Your task to perform on an android device: delete the emails in spam in the gmail app Image 0: 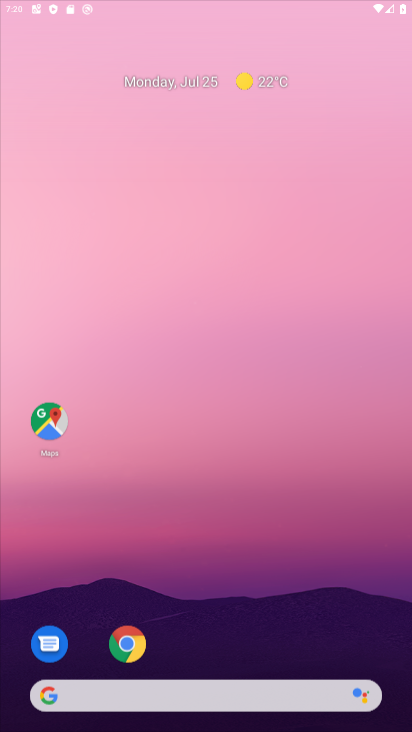
Step 0: press home button
Your task to perform on an android device: delete the emails in spam in the gmail app Image 1: 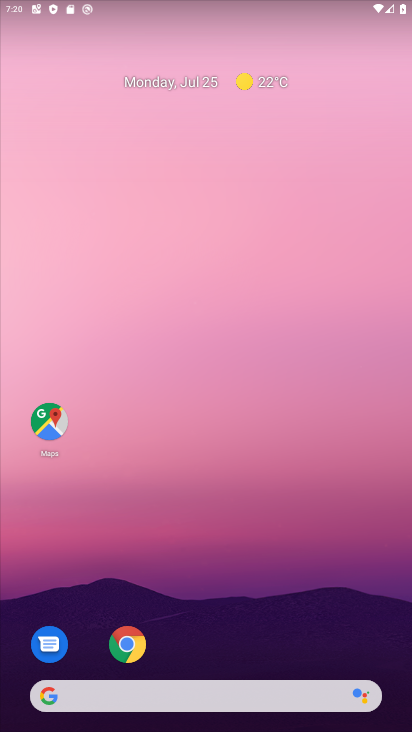
Step 1: drag from (217, 660) to (230, 4)
Your task to perform on an android device: delete the emails in spam in the gmail app Image 2: 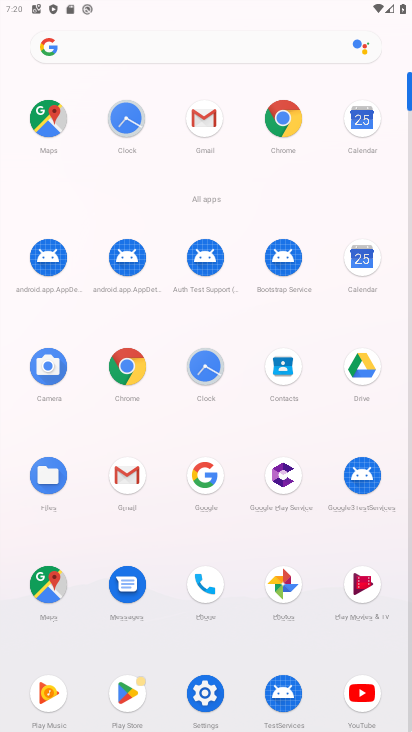
Step 2: click (201, 112)
Your task to perform on an android device: delete the emails in spam in the gmail app Image 3: 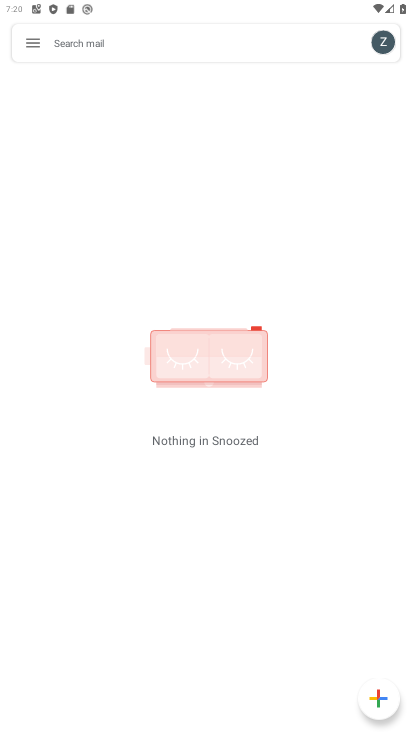
Step 3: click (31, 38)
Your task to perform on an android device: delete the emails in spam in the gmail app Image 4: 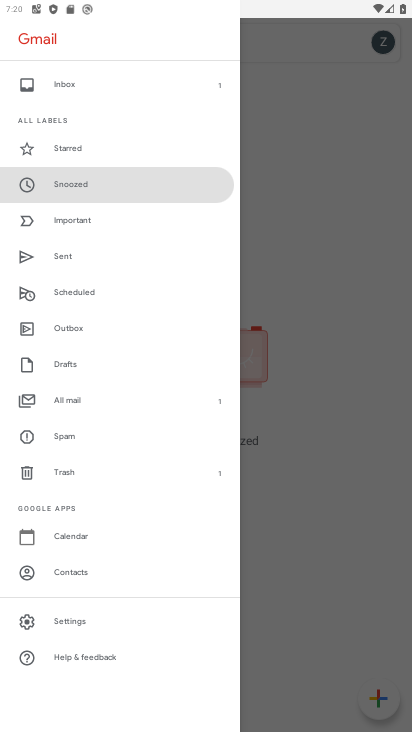
Step 4: click (74, 436)
Your task to perform on an android device: delete the emails in spam in the gmail app Image 5: 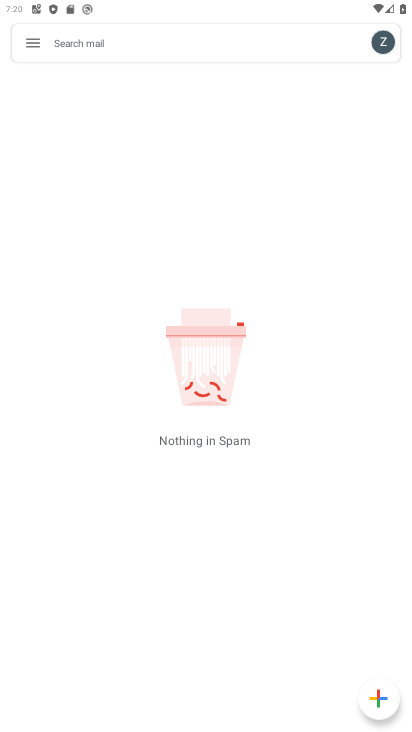
Step 5: task complete